Your task to perform on an android device: turn on location history Image 0: 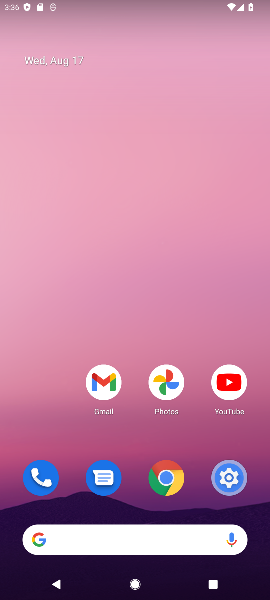
Step 0: drag from (127, 427) to (190, 1)
Your task to perform on an android device: turn on location history Image 1: 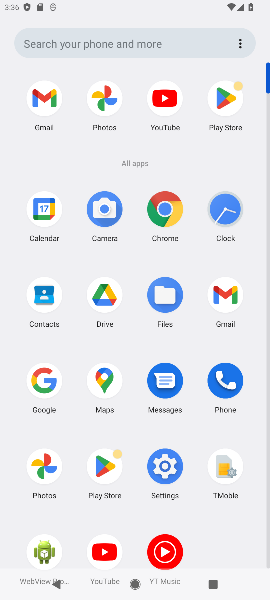
Step 1: click (164, 459)
Your task to perform on an android device: turn on location history Image 2: 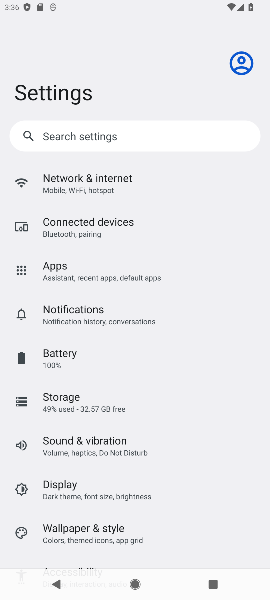
Step 2: drag from (201, 431) to (268, 66)
Your task to perform on an android device: turn on location history Image 3: 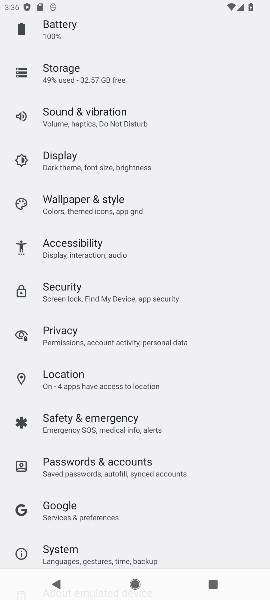
Step 3: click (71, 376)
Your task to perform on an android device: turn on location history Image 4: 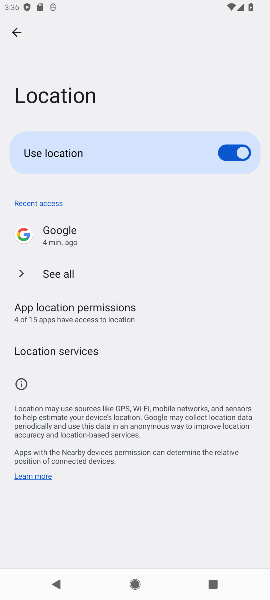
Step 4: click (78, 357)
Your task to perform on an android device: turn on location history Image 5: 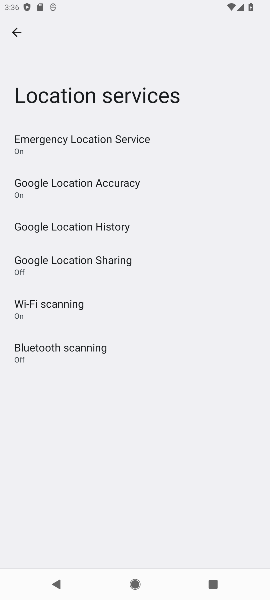
Step 5: click (96, 225)
Your task to perform on an android device: turn on location history Image 6: 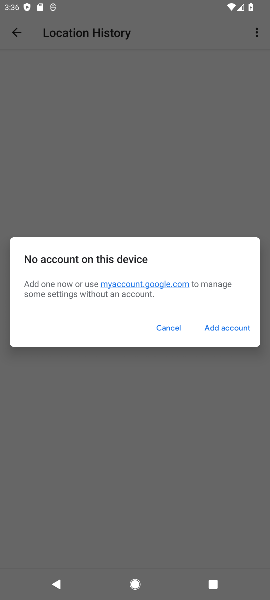
Step 6: click (163, 325)
Your task to perform on an android device: turn on location history Image 7: 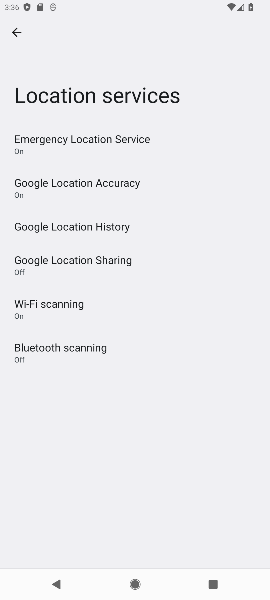
Step 7: task complete